Your task to perform on an android device: Open Chrome and go to settings Image 0: 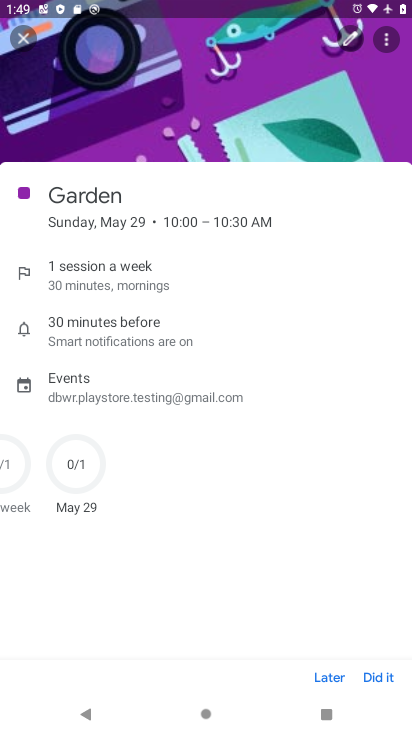
Step 0: press home button
Your task to perform on an android device: Open Chrome and go to settings Image 1: 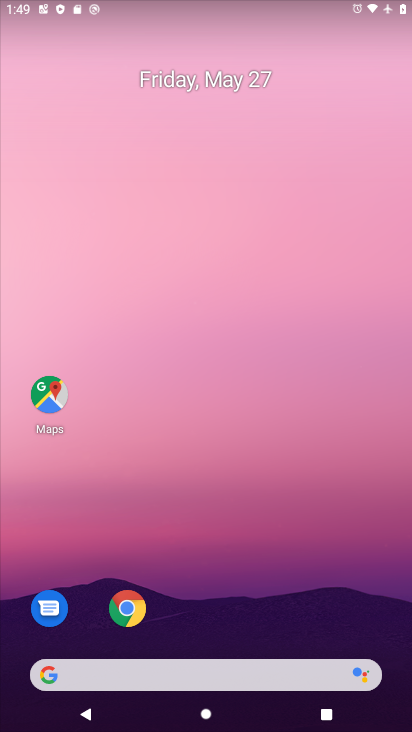
Step 1: click (123, 611)
Your task to perform on an android device: Open Chrome and go to settings Image 2: 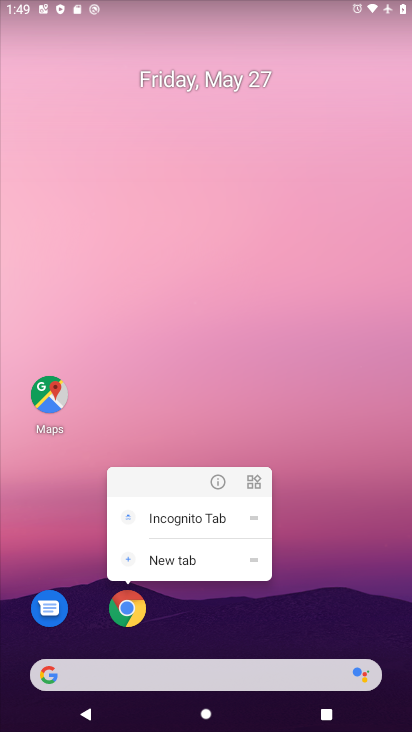
Step 2: click (128, 619)
Your task to perform on an android device: Open Chrome and go to settings Image 3: 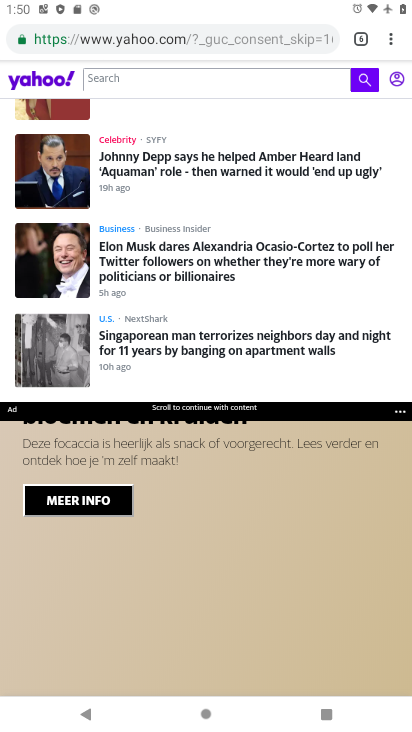
Step 3: task complete